Your task to perform on an android device: What is the recent news? Image 0: 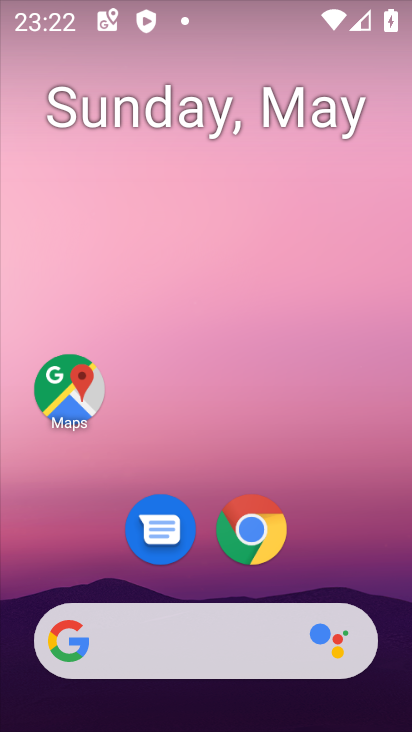
Step 0: click (353, 565)
Your task to perform on an android device: What is the recent news? Image 1: 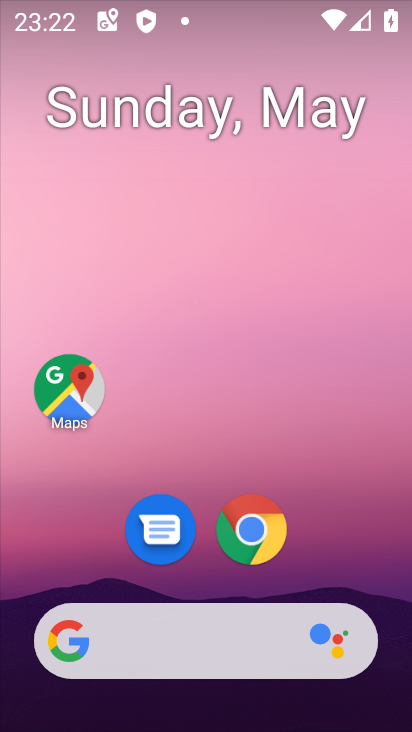
Step 1: click (223, 633)
Your task to perform on an android device: What is the recent news? Image 2: 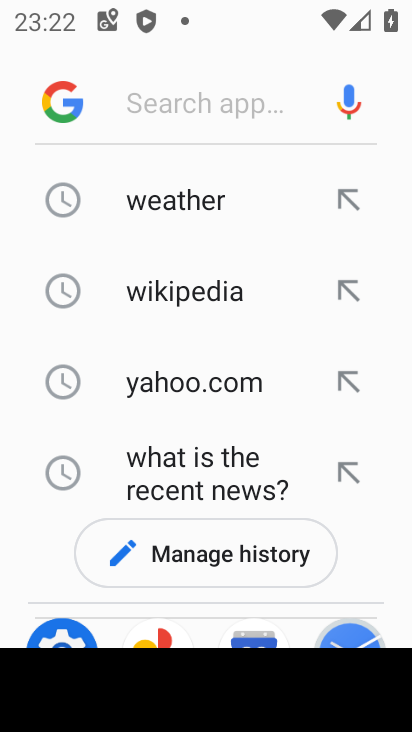
Step 2: click (205, 439)
Your task to perform on an android device: What is the recent news? Image 3: 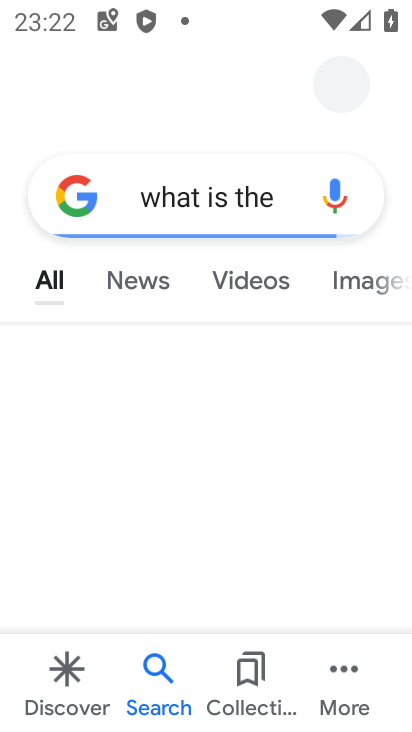
Step 3: task complete